Your task to perform on an android device: turn off wifi Image 0: 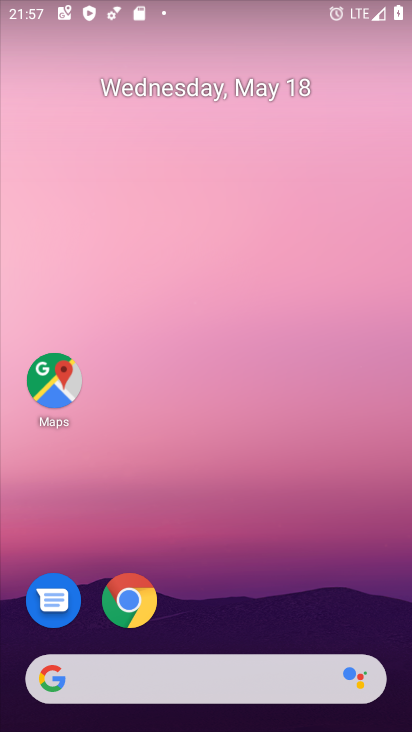
Step 0: drag from (104, 11) to (189, 529)
Your task to perform on an android device: turn off wifi Image 1: 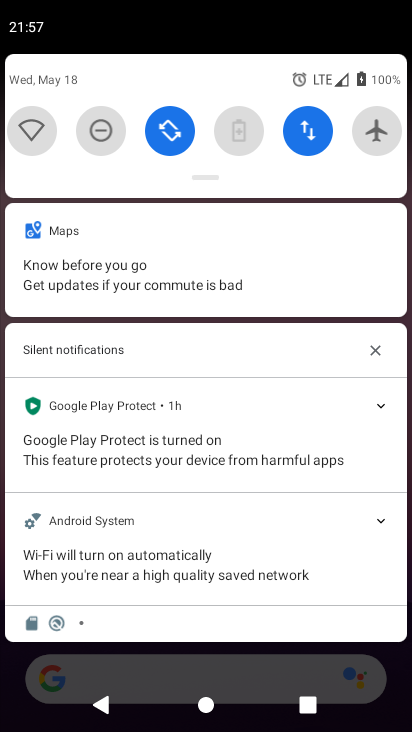
Step 1: task complete